Your task to perform on an android device: Open network settings Image 0: 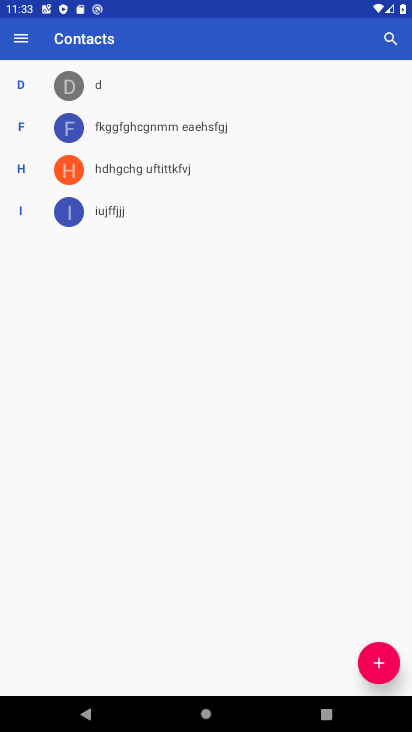
Step 0: press home button
Your task to perform on an android device: Open network settings Image 1: 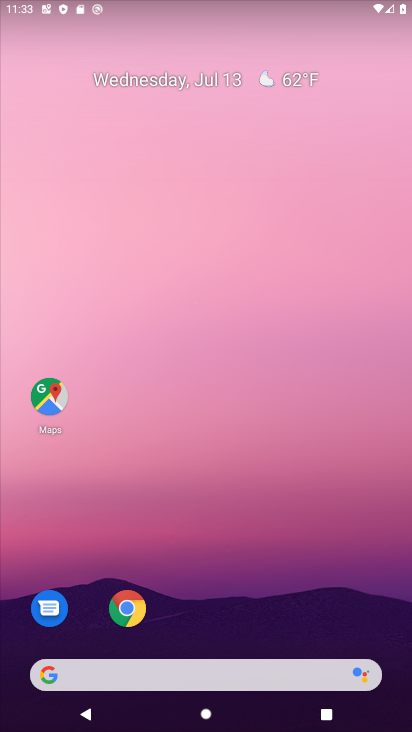
Step 1: drag from (239, 715) to (197, 126)
Your task to perform on an android device: Open network settings Image 2: 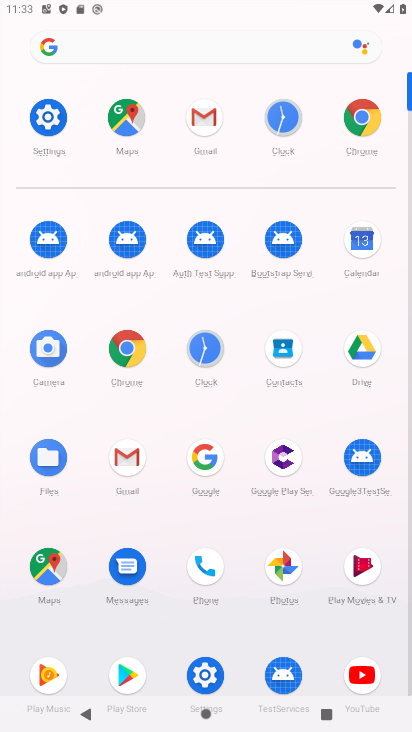
Step 2: click (44, 117)
Your task to perform on an android device: Open network settings Image 3: 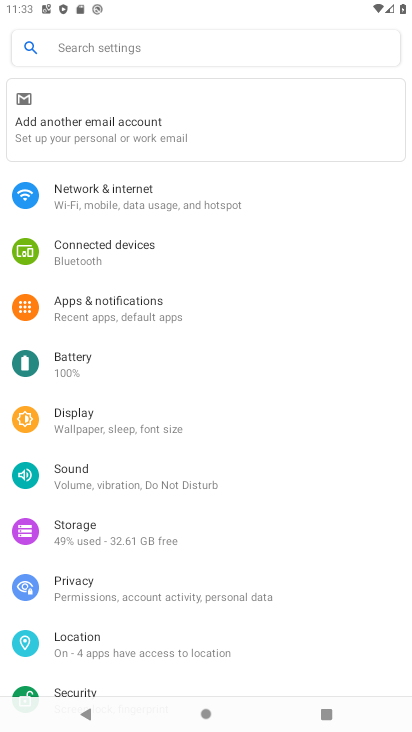
Step 3: click (79, 190)
Your task to perform on an android device: Open network settings Image 4: 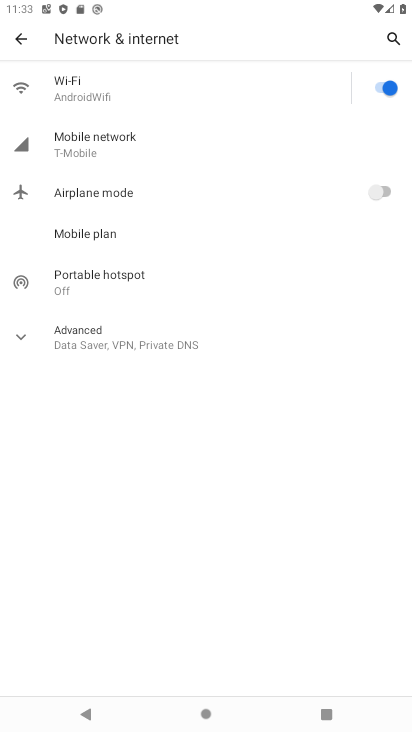
Step 4: click (70, 134)
Your task to perform on an android device: Open network settings Image 5: 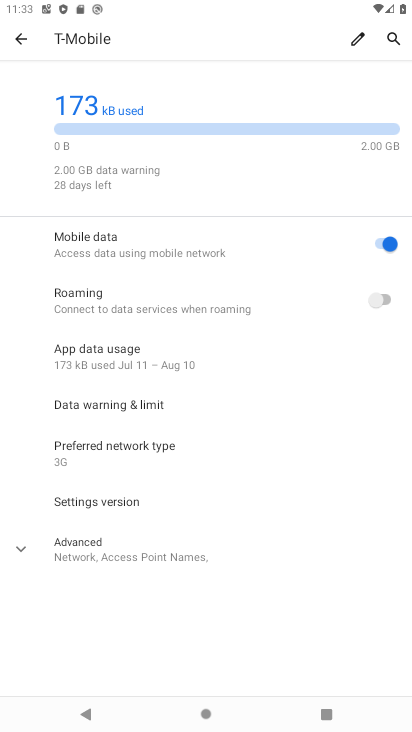
Step 5: task complete